Your task to perform on an android device: open a bookmark in the chrome app Image 0: 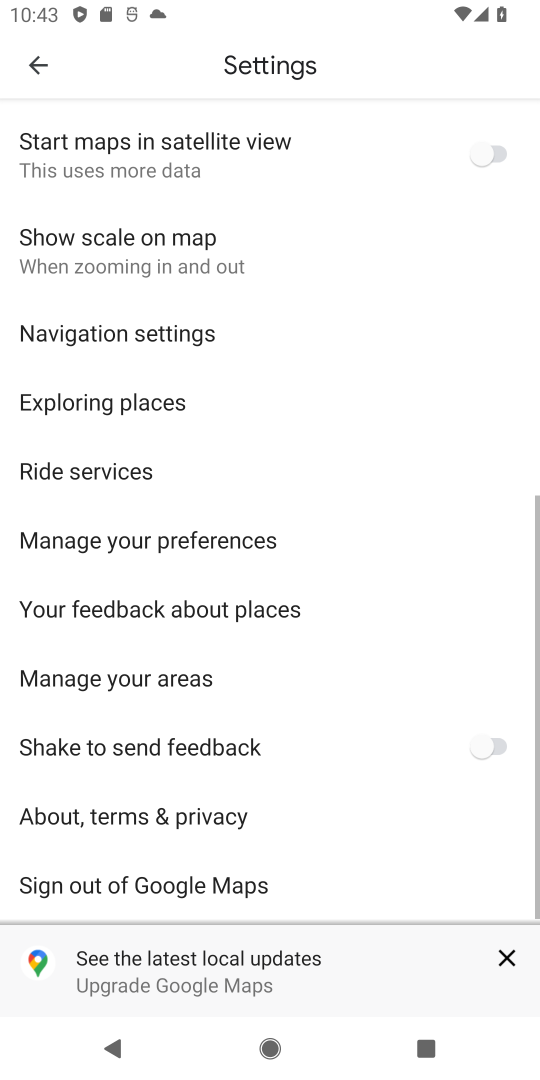
Step 0: press home button
Your task to perform on an android device: open a bookmark in the chrome app Image 1: 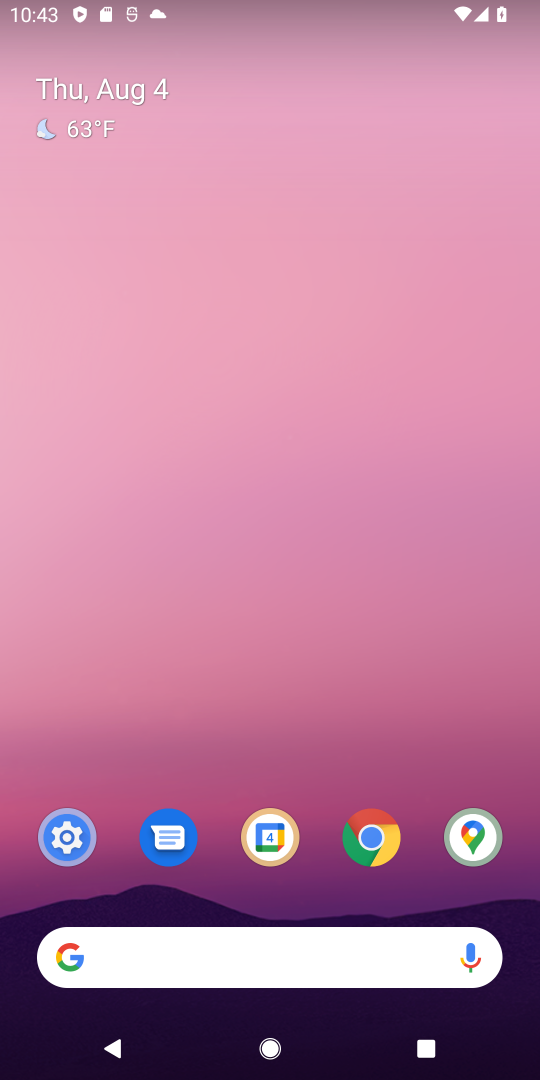
Step 1: drag from (319, 893) to (375, 88)
Your task to perform on an android device: open a bookmark in the chrome app Image 2: 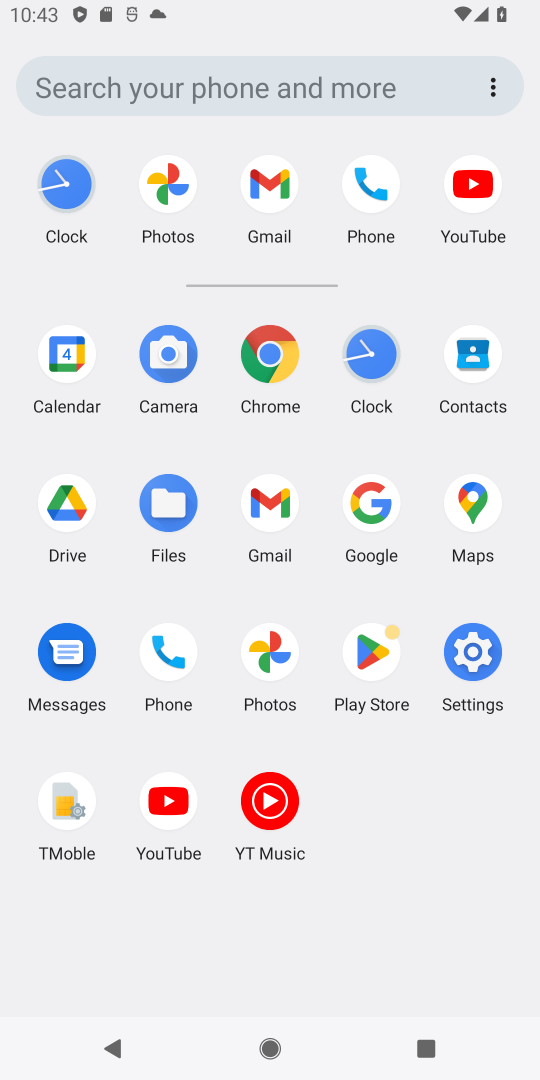
Step 2: click (263, 343)
Your task to perform on an android device: open a bookmark in the chrome app Image 3: 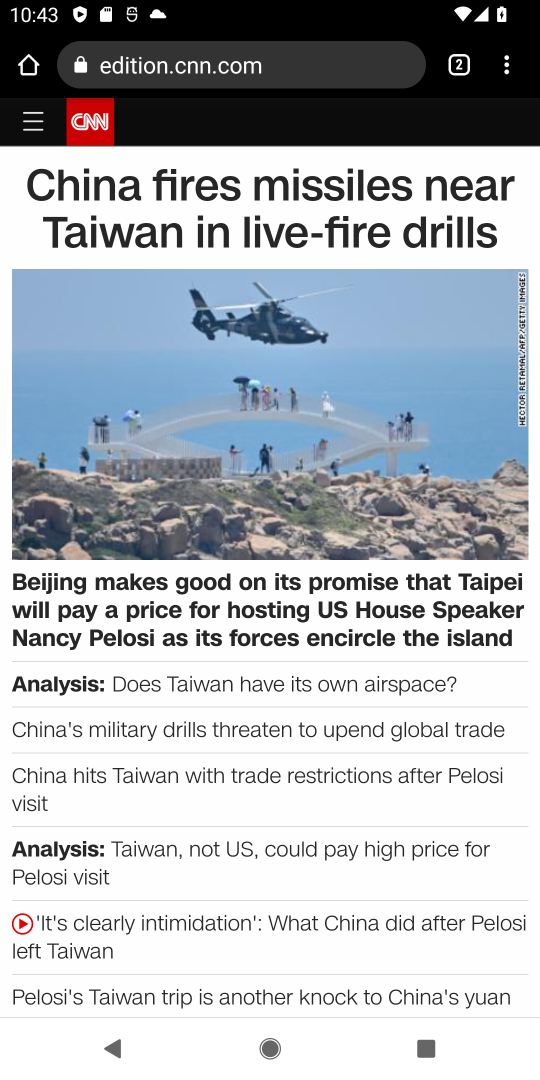
Step 3: click (514, 71)
Your task to perform on an android device: open a bookmark in the chrome app Image 4: 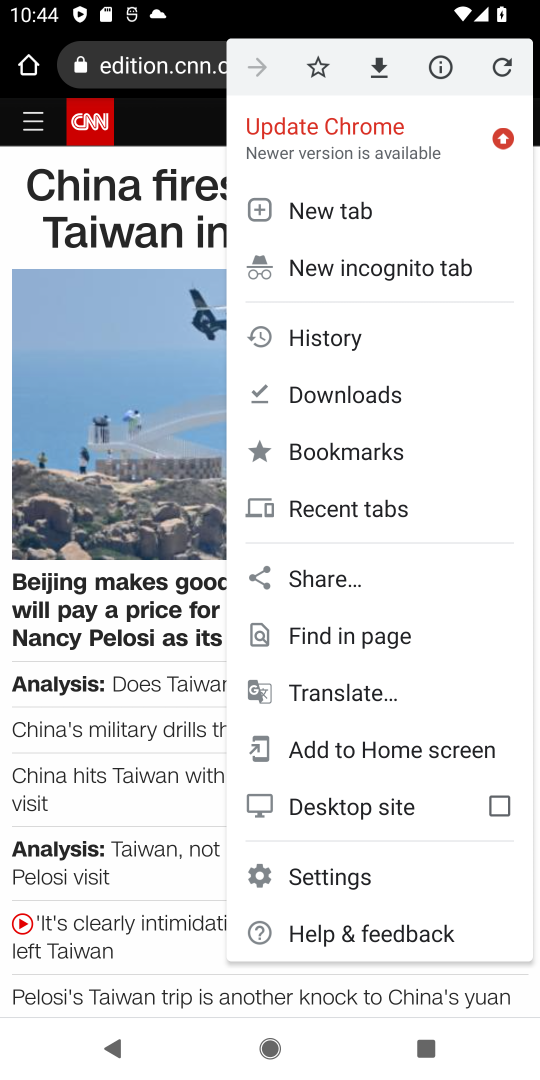
Step 4: click (413, 443)
Your task to perform on an android device: open a bookmark in the chrome app Image 5: 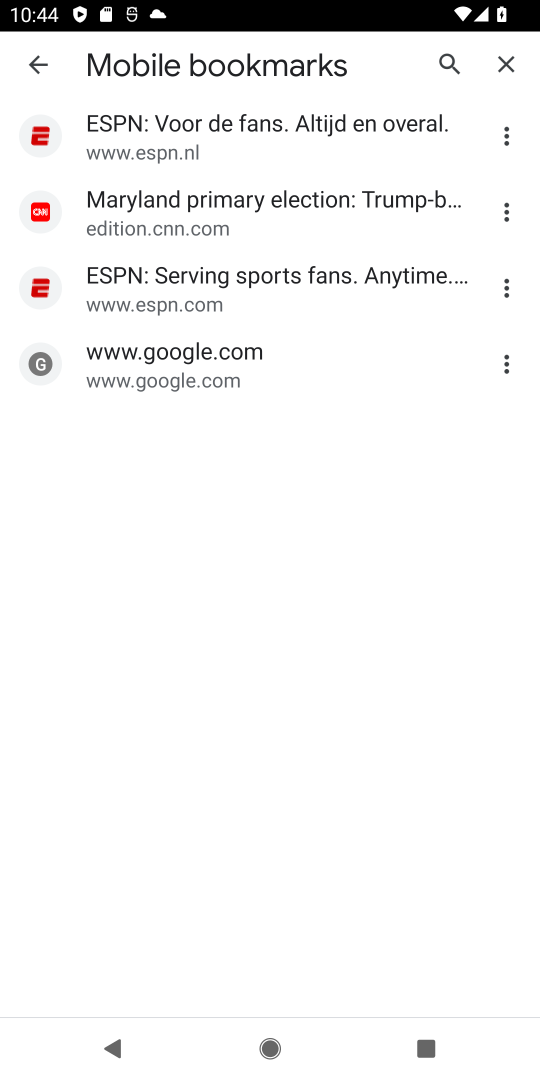
Step 5: click (216, 200)
Your task to perform on an android device: open a bookmark in the chrome app Image 6: 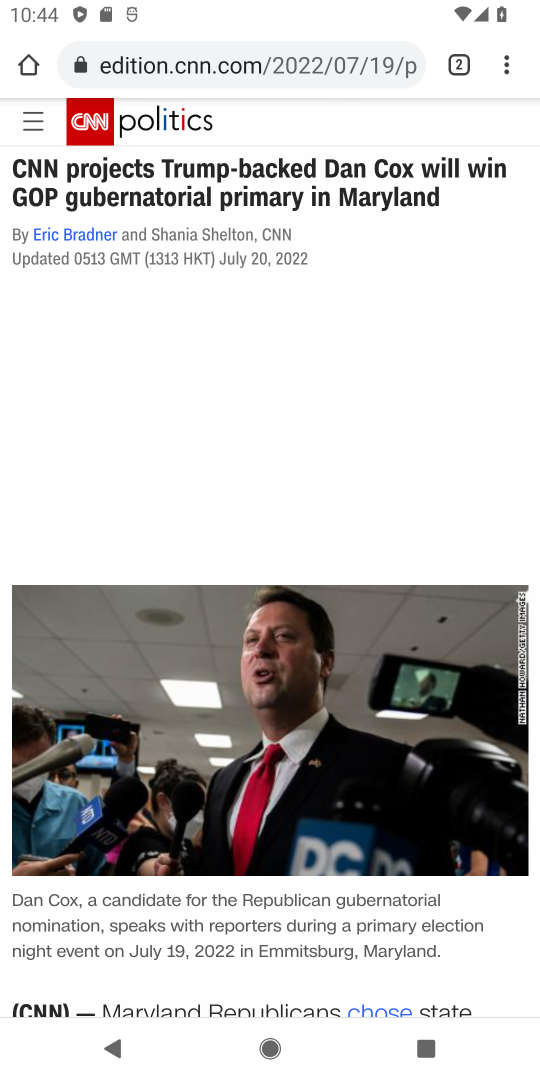
Step 6: click (504, 59)
Your task to perform on an android device: open a bookmark in the chrome app Image 7: 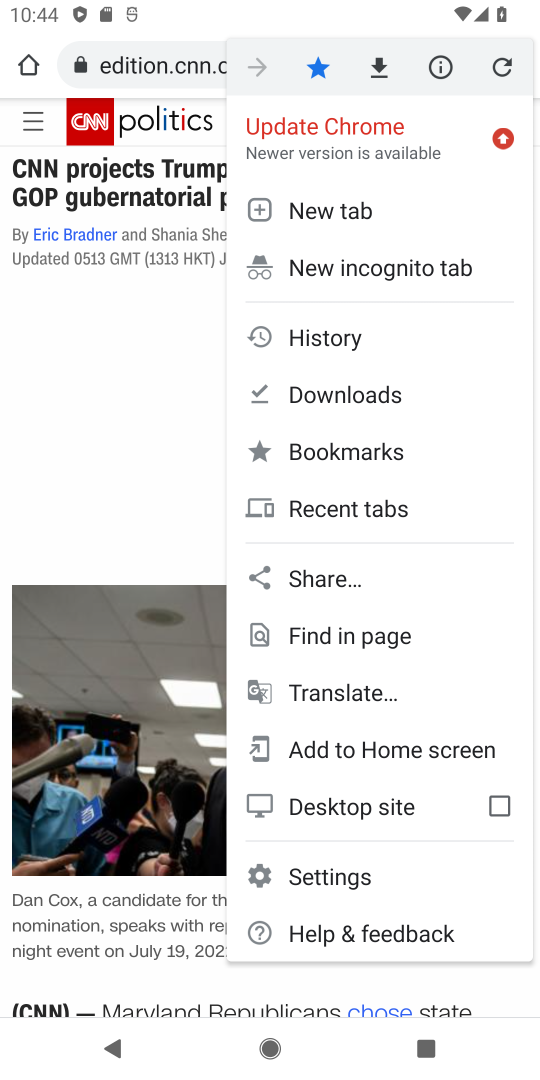
Step 7: click (399, 442)
Your task to perform on an android device: open a bookmark in the chrome app Image 8: 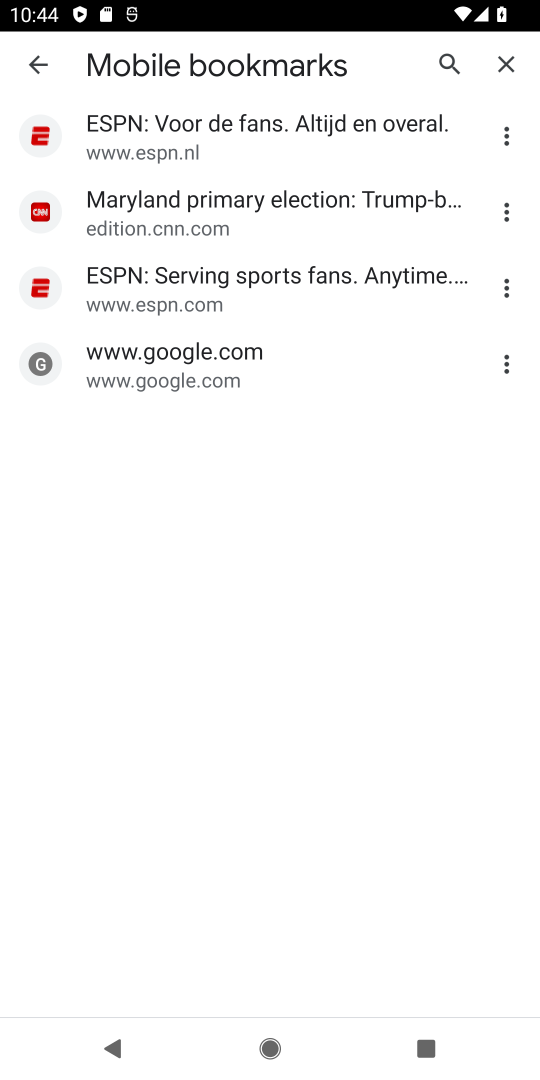
Step 8: task complete